Your task to perform on an android device: turn notification dots on Image 0: 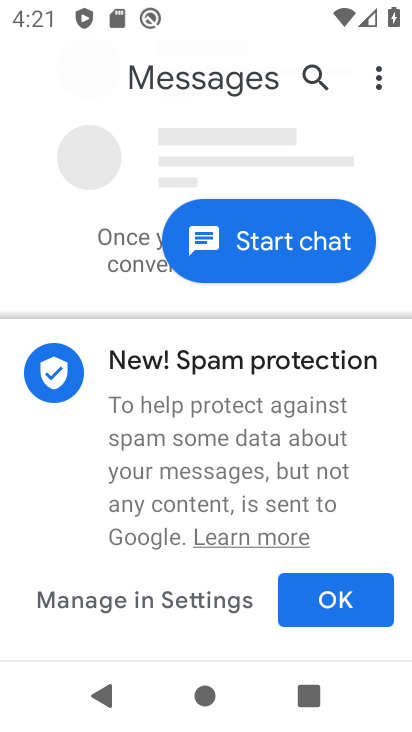
Step 0: press home button
Your task to perform on an android device: turn notification dots on Image 1: 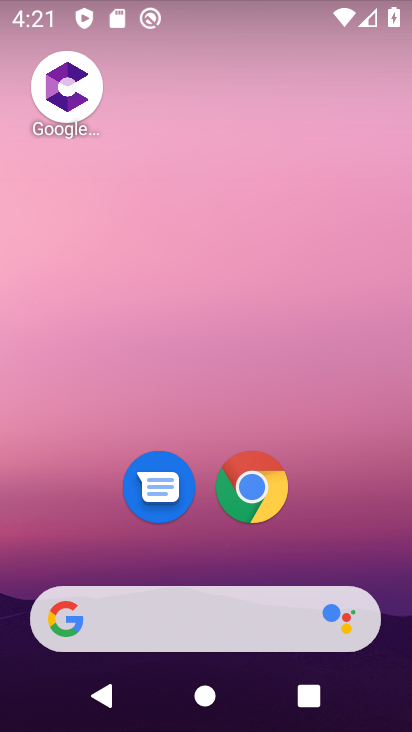
Step 1: drag from (70, 530) to (182, 50)
Your task to perform on an android device: turn notification dots on Image 2: 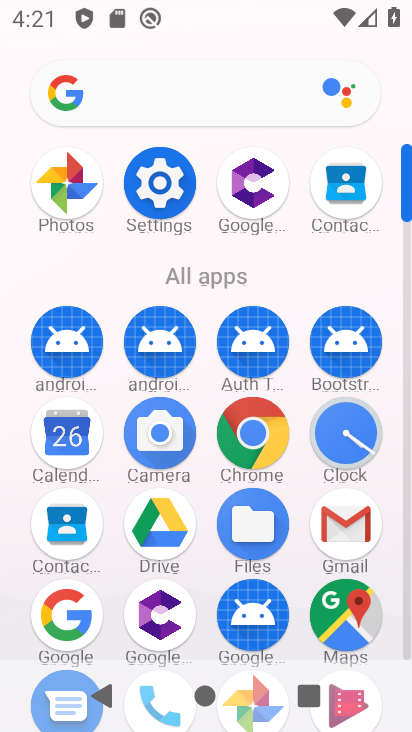
Step 2: drag from (177, 563) to (256, 339)
Your task to perform on an android device: turn notification dots on Image 3: 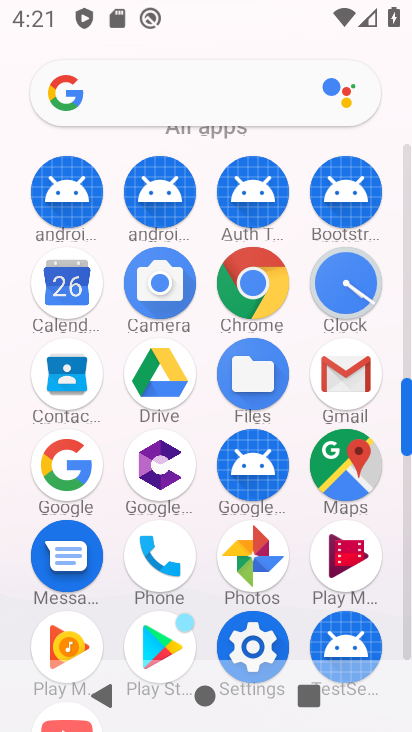
Step 3: click (267, 650)
Your task to perform on an android device: turn notification dots on Image 4: 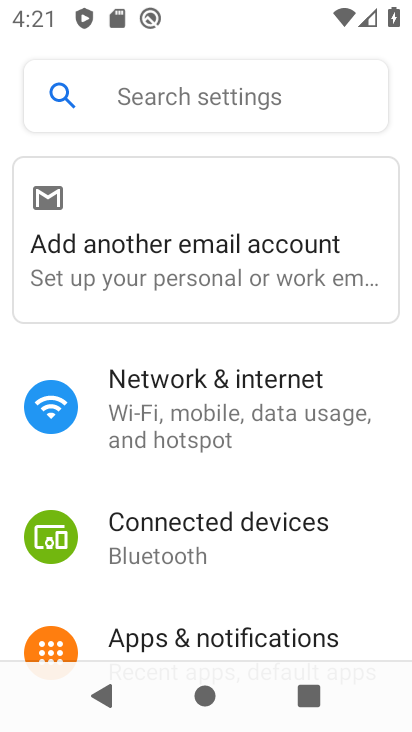
Step 4: drag from (215, 593) to (361, 173)
Your task to perform on an android device: turn notification dots on Image 5: 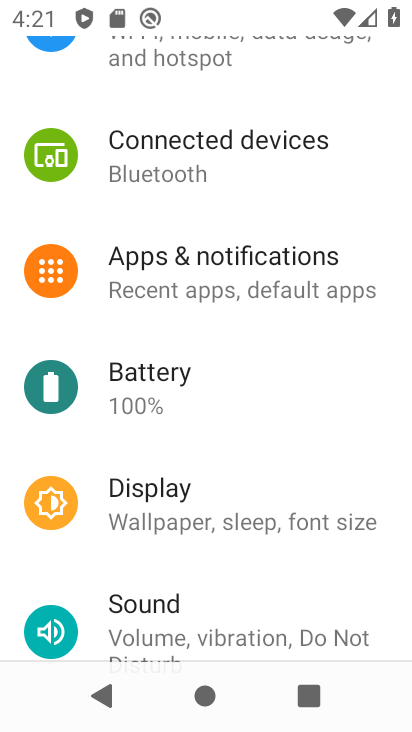
Step 5: drag from (198, 555) to (286, 197)
Your task to perform on an android device: turn notification dots on Image 6: 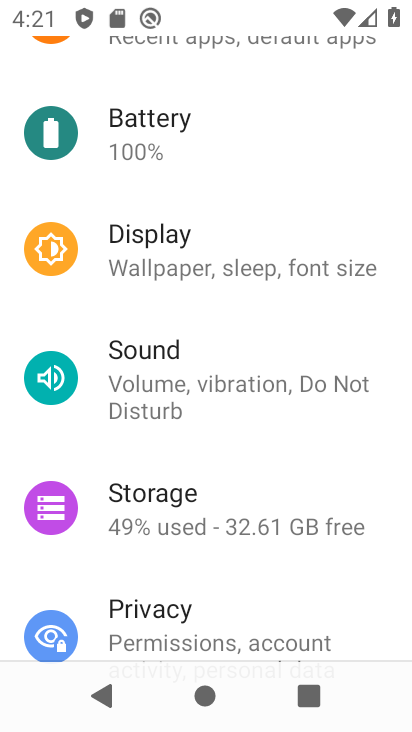
Step 6: drag from (196, 607) to (272, 300)
Your task to perform on an android device: turn notification dots on Image 7: 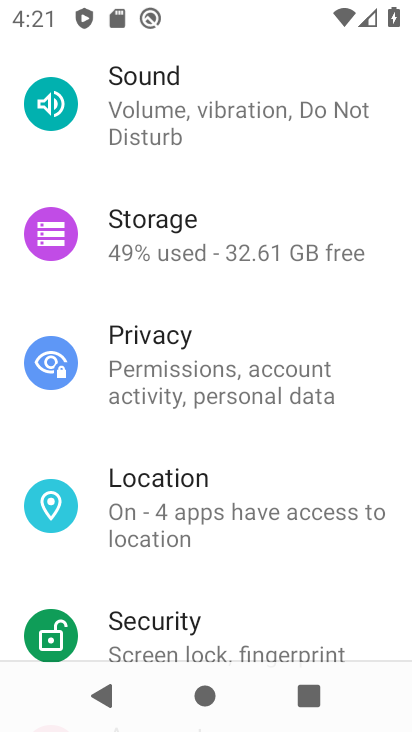
Step 7: drag from (216, 595) to (277, 643)
Your task to perform on an android device: turn notification dots on Image 8: 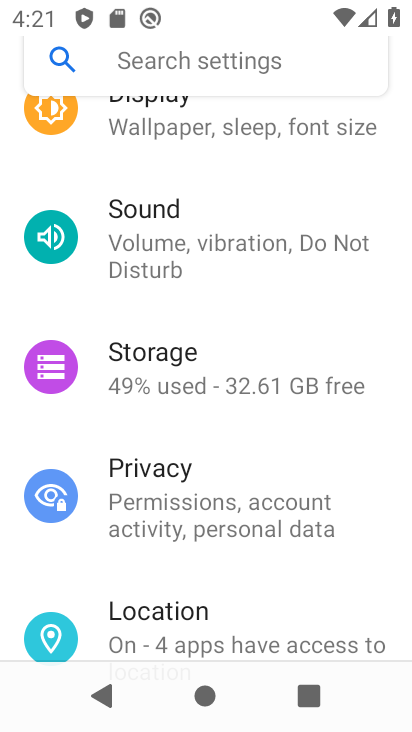
Step 8: drag from (294, 305) to (283, 635)
Your task to perform on an android device: turn notification dots on Image 9: 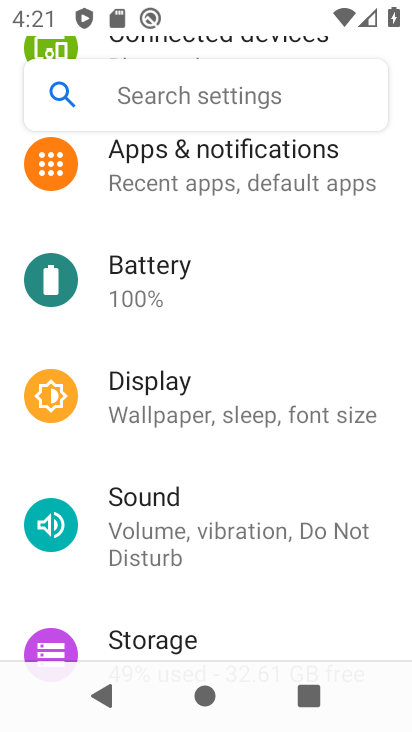
Step 9: drag from (316, 217) to (312, 517)
Your task to perform on an android device: turn notification dots on Image 10: 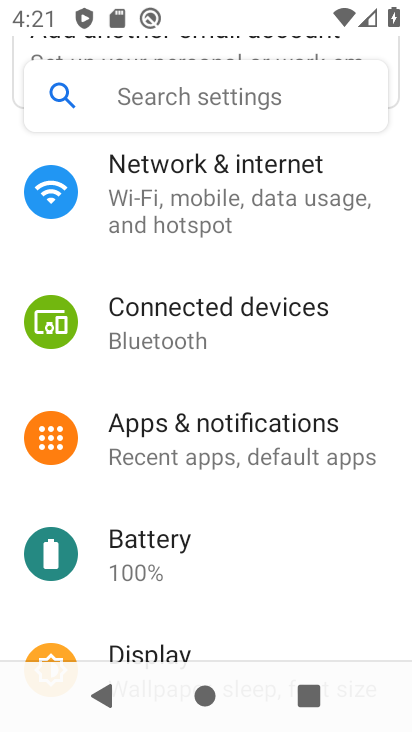
Step 10: click (208, 427)
Your task to perform on an android device: turn notification dots on Image 11: 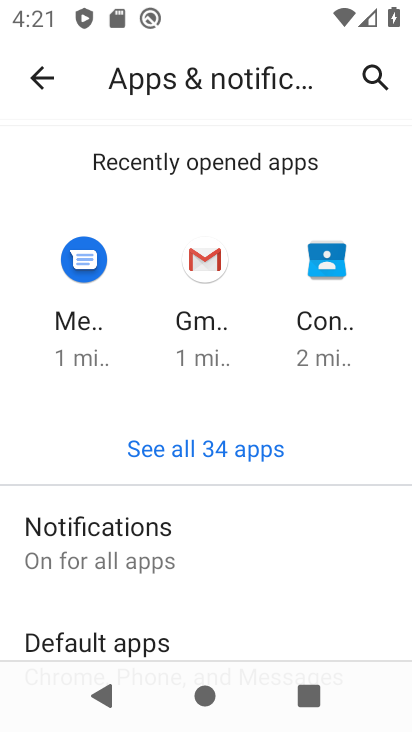
Step 11: drag from (148, 575) to (278, 266)
Your task to perform on an android device: turn notification dots on Image 12: 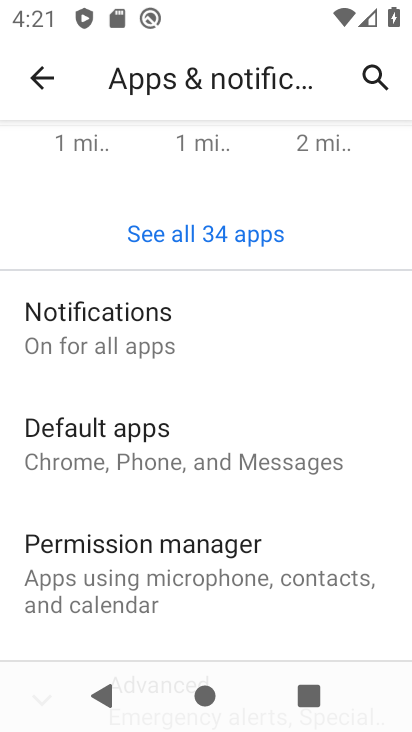
Step 12: click (202, 342)
Your task to perform on an android device: turn notification dots on Image 13: 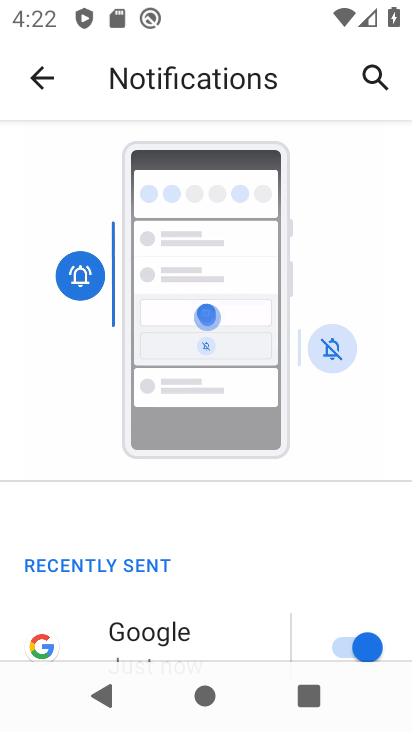
Step 13: drag from (236, 627) to (366, 264)
Your task to perform on an android device: turn notification dots on Image 14: 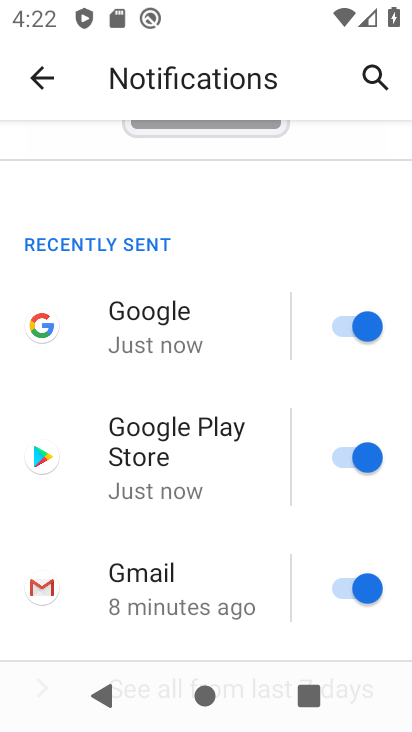
Step 14: drag from (184, 596) to (380, 86)
Your task to perform on an android device: turn notification dots on Image 15: 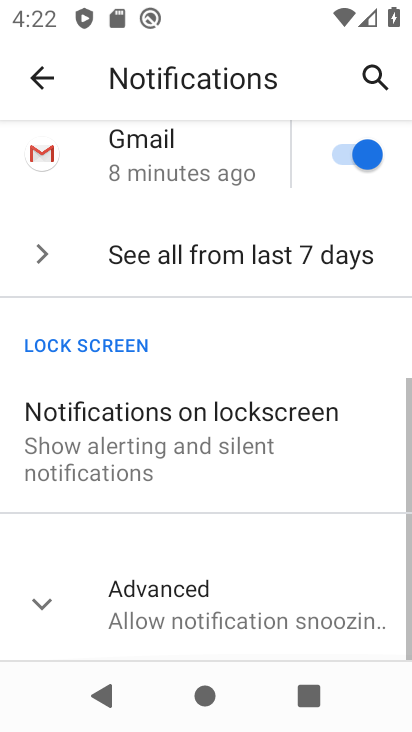
Step 15: click (217, 609)
Your task to perform on an android device: turn notification dots on Image 16: 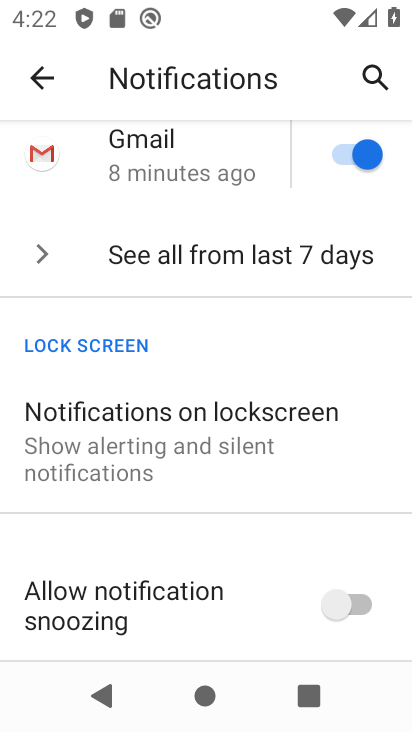
Step 16: task complete